Your task to perform on an android device: check storage Image 0: 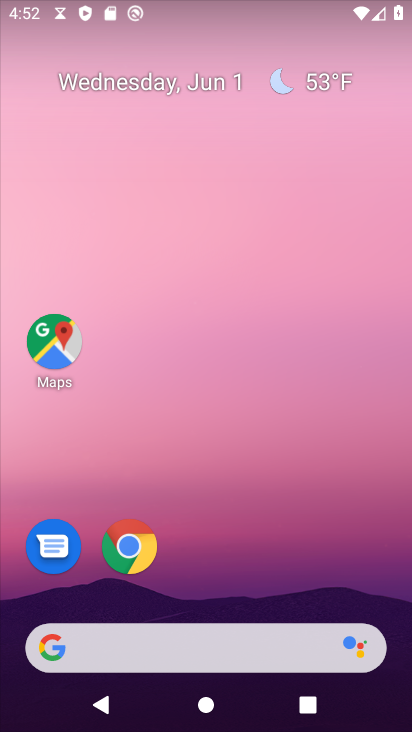
Step 0: click (203, 36)
Your task to perform on an android device: check storage Image 1: 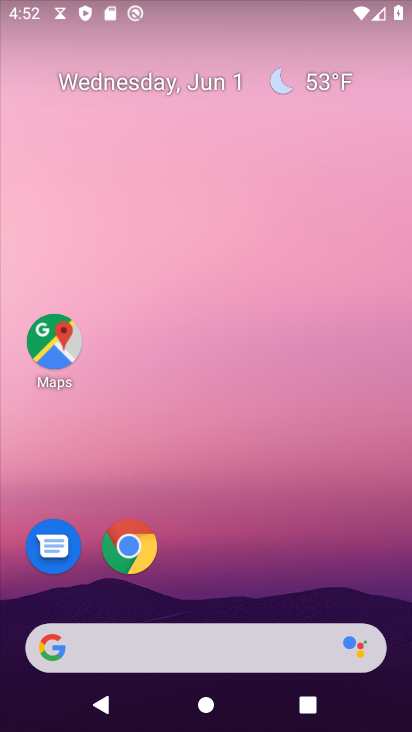
Step 1: drag from (264, 537) to (189, 38)
Your task to perform on an android device: check storage Image 2: 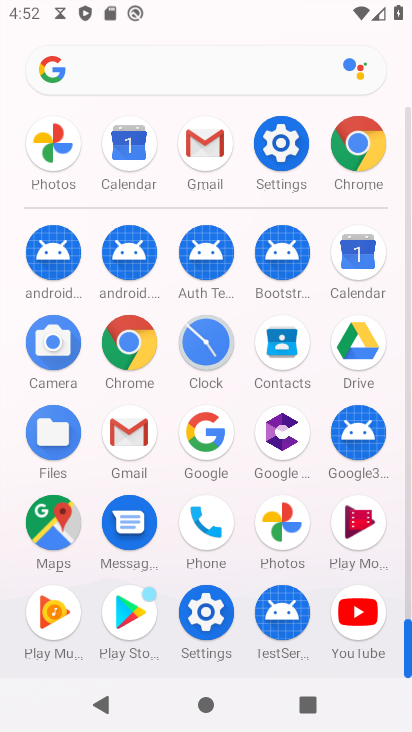
Step 2: click (201, 607)
Your task to perform on an android device: check storage Image 3: 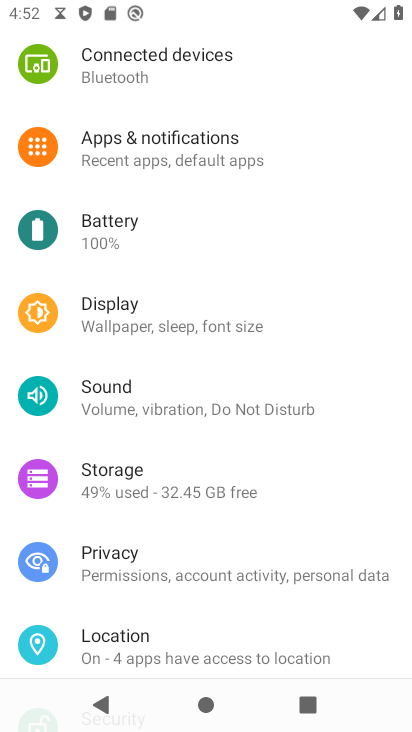
Step 3: click (181, 472)
Your task to perform on an android device: check storage Image 4: 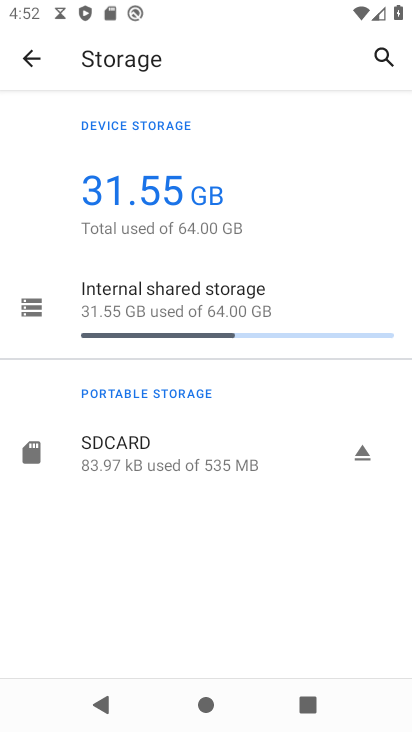
Step 4: task complete